Your task to perform on an android device: toggle notification dots Image 0: 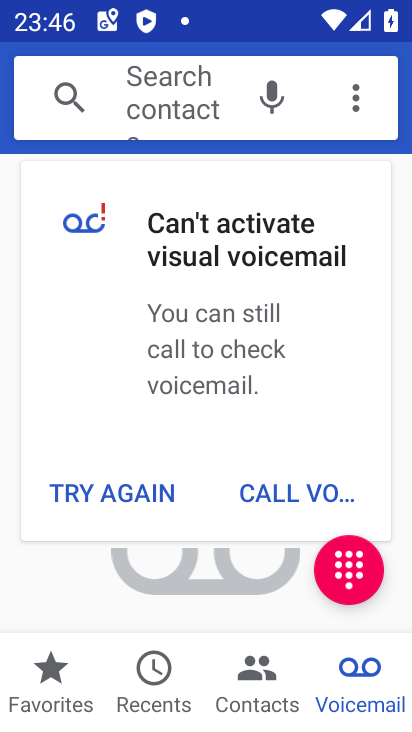
Step 0: task complete